Your task to perform on an android device: toggle translation in the chrome app Image 0: 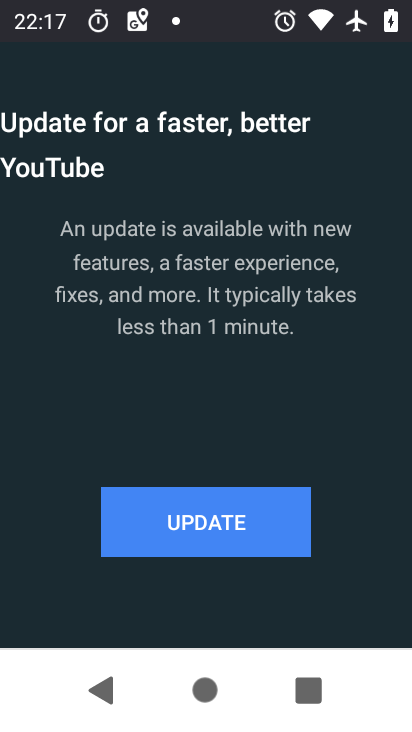
Step 0: press home button
Your task to perform on an android device: toggle translation in the chrome app Image 1: 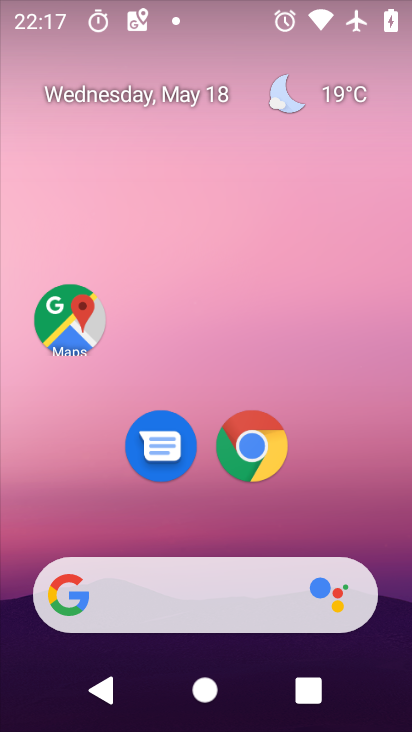
Step 1: click (251, 461)
Your task to perform on an android device: toggle translation in the chrome app Image 2: 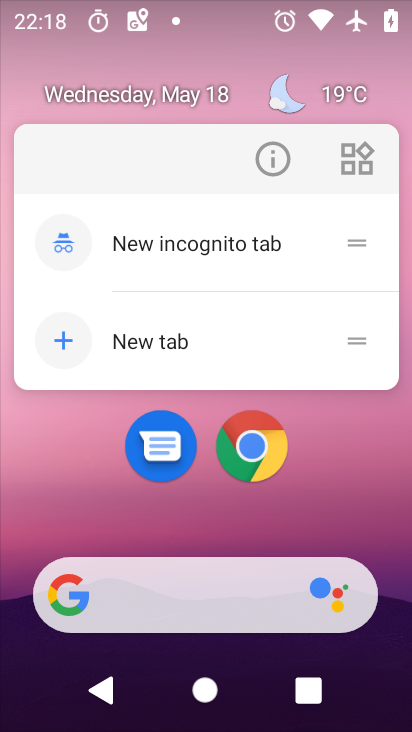
Step 2: click (252, 461)
Your task to perform on an android device: toggle translation in the chrome app Image 3: 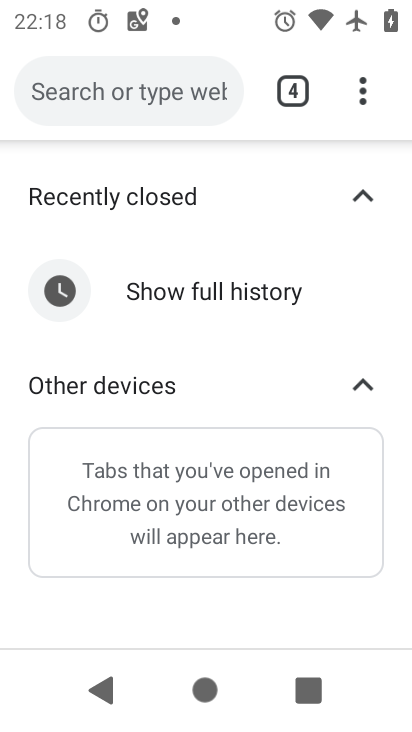
Step 3: drag from (363, 99) to (209, 476)
Your task to perform on an android device: toggle translation in the chrome app Image 4: 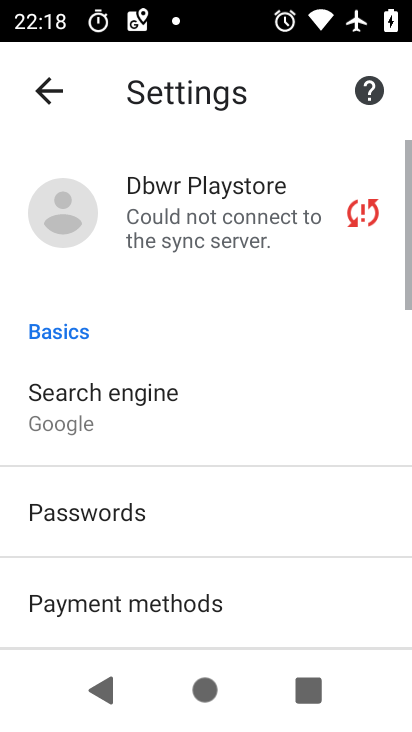
Step 4: drag from (232, 577) to (337, 113)
Your task to perform on an android device: toggle translation in the chrome app Image 5: 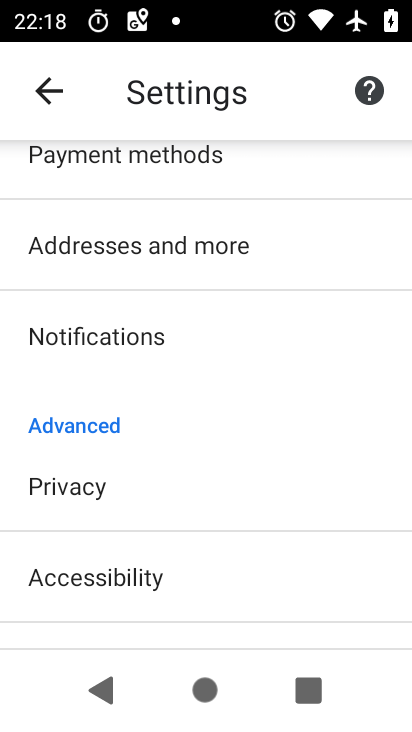
Step 5: drag from (256, 524) to (319, 183)
Your task to perform on an android device: toggle translation in the chrome app Image 6: 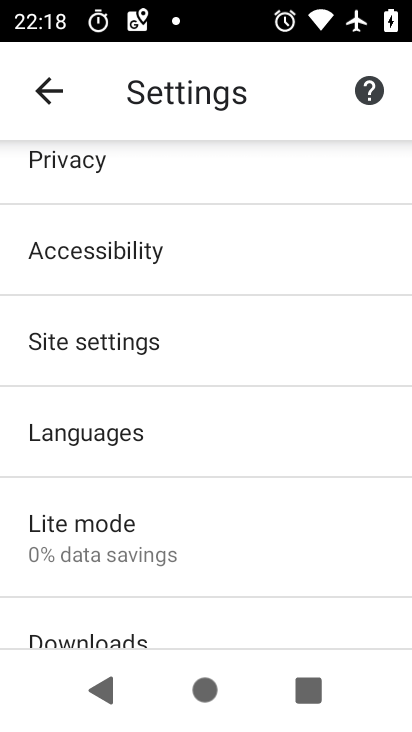
Step 6: click (102, 436)
Your task to perform on an android device: toggle translation in the chrome app Image 7: 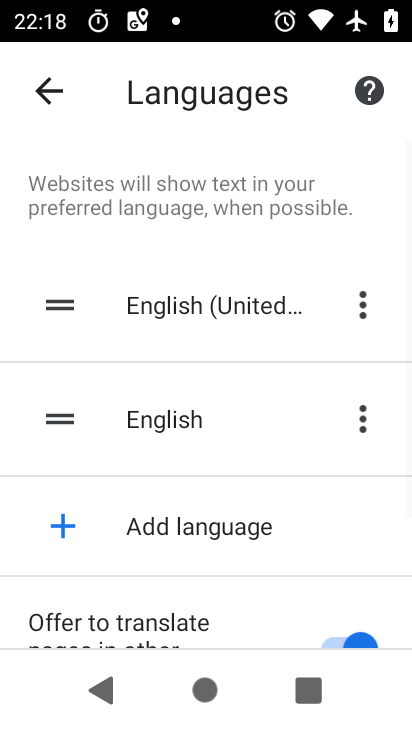
Step 7: drag from (180, 617) to (322, 205)
Your task to perform on an android device: toggle translation in the chrome app Image 8: 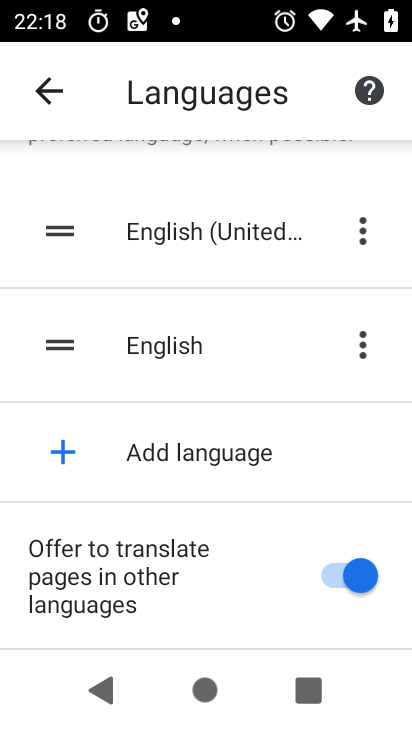
Step 8: click (349, 588)
Your task to perform on an android device: toggle translation in the chrome app Image 9: 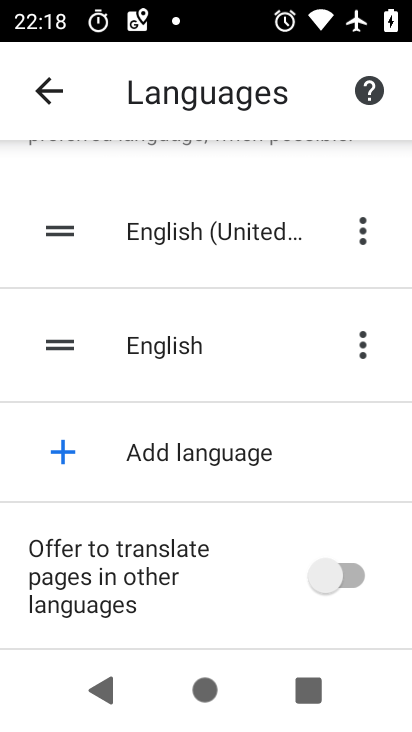
Step 9: task complete